Your task to perform on an android device: Open the map Image 0: 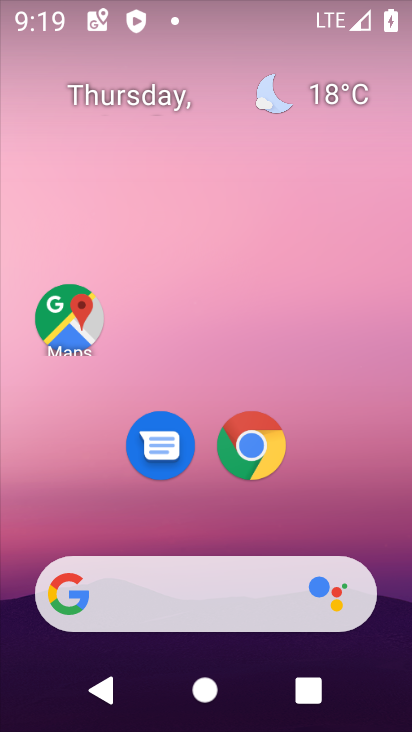
Step 0: click (75, 314)
Your task to perform on an android device: Open the map Image 1: 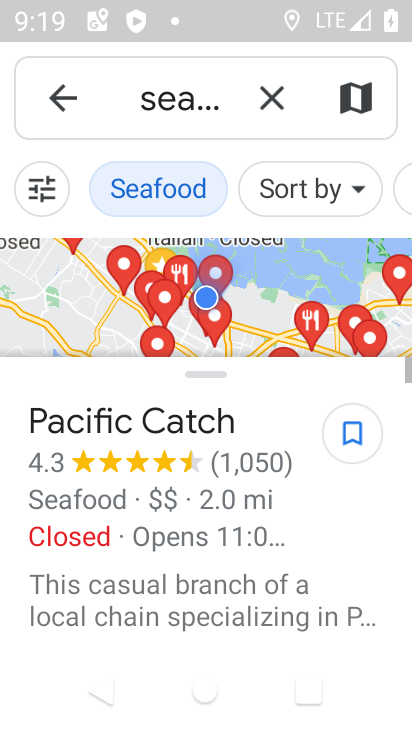
Step 1: task complete